Your task to perform on an android device: Search for "macbook pro 15 inch" on bestbuy, select the first entry, add it to the cart, then select checkout. Image 0: 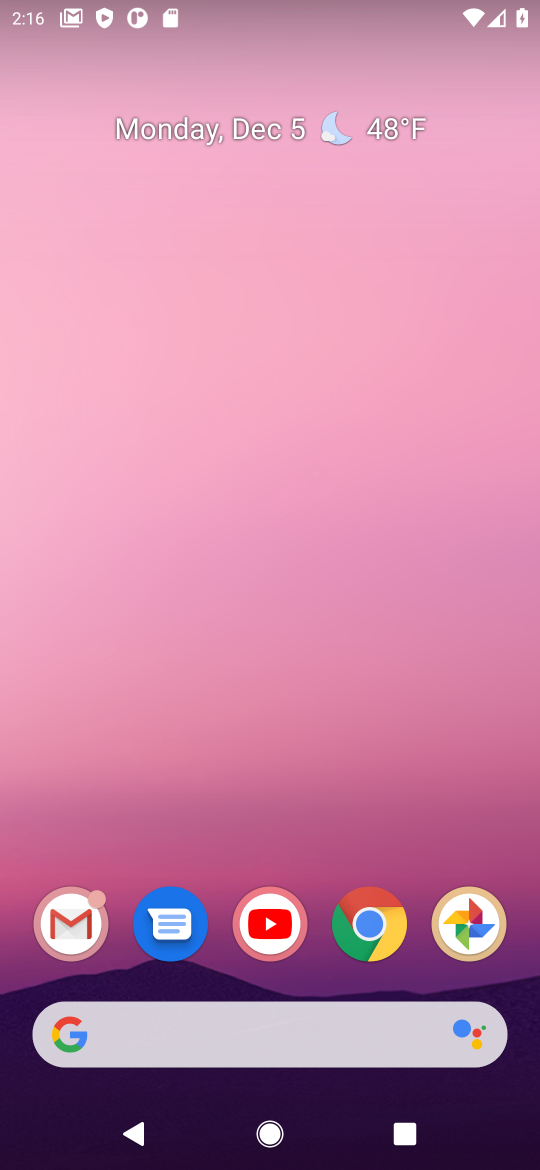
Step 0: click (295, 1053)
Your task to perform on an android device: Search for "macbook pro 15 inch" on bestbuy, select the first entry, add it to the cart, then select checkout. Image 1: 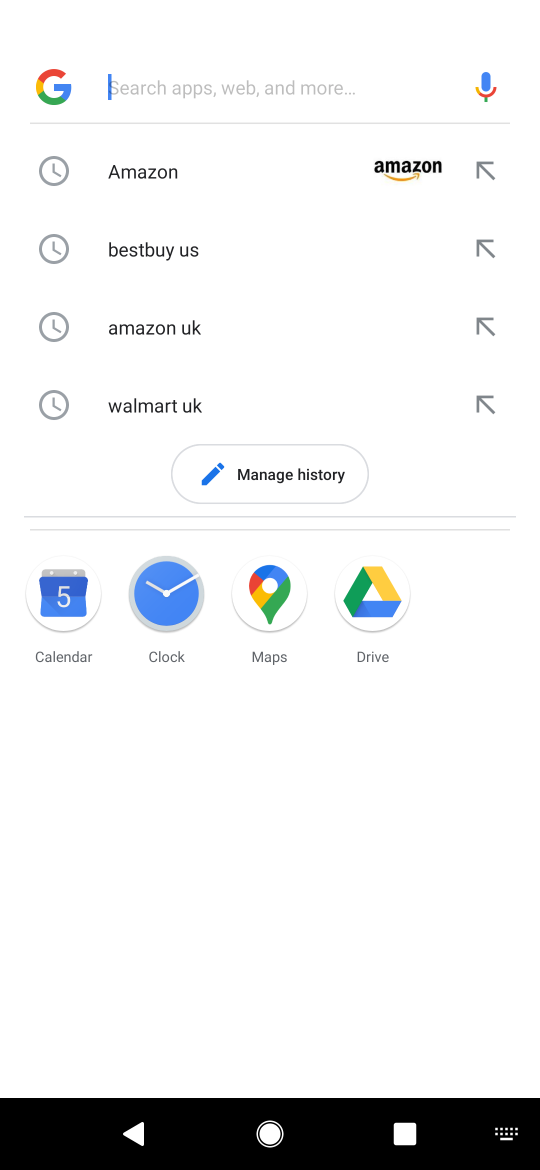
Step 1: click (198, 246)
Your task to perform on an android device: Search for "macbook pro 15 inch" on bestbuy, select the first entry, add it to the cart, then select checkout. Image 2: 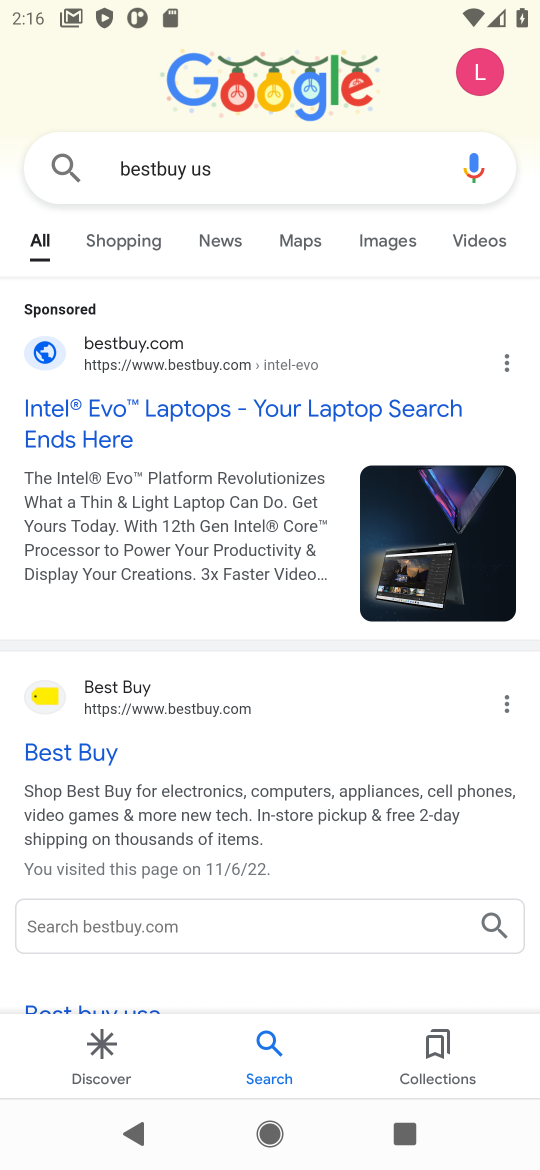
Step 2: click (110, 434)
Your task to perform on an android device: Search for "macbook pro 15 inch" on bestbuy, select the first entry, add it to the cart, then select checkout. Image 3: 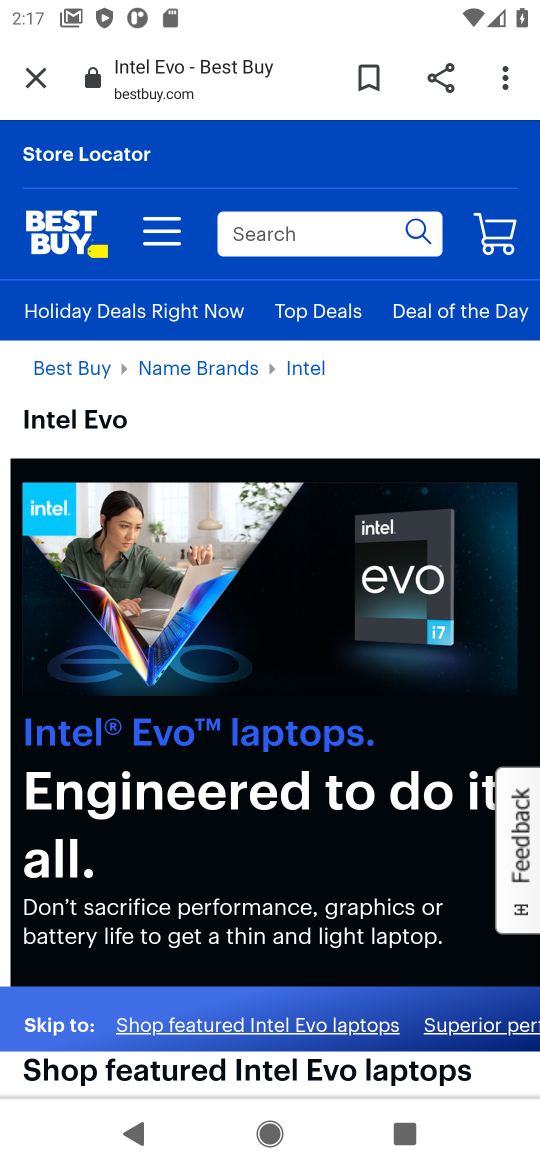
Step 3: click (297, 241)
Your task to perform on an android device: Search for "macbook pro 15 inch" on bestbuy, select the first entry, add it to the cart, then select checkout. Image 4: 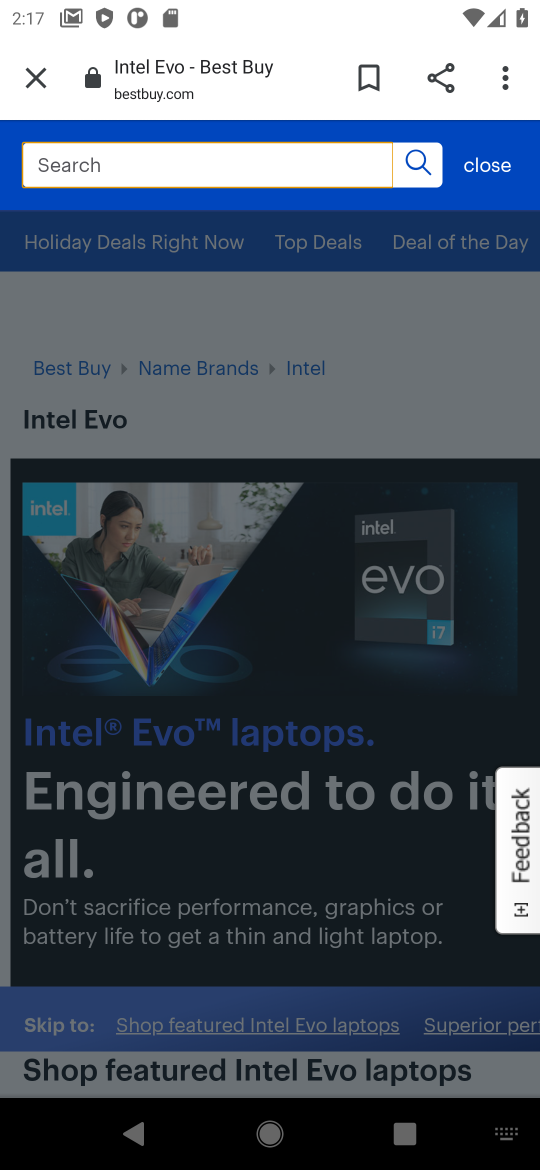
Step 4: type "m"
Your task to perform on an android device: Search for "macbook pro 15 inch" on bestbuy, select the first entry, add it to the cart, then select checkout. Image 5: 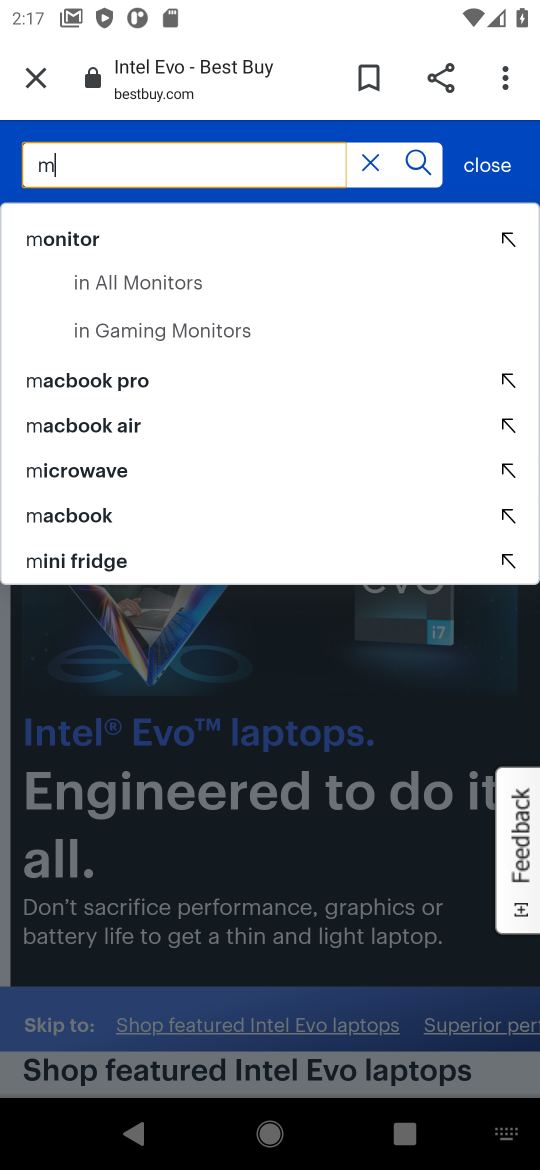
Step 5: click (127, 435)
Your task to perform on an android device: Search for "macbook pro 15 inch" on bestbuy, select the first entry, add it to the cart, then select checkout. Image 6: 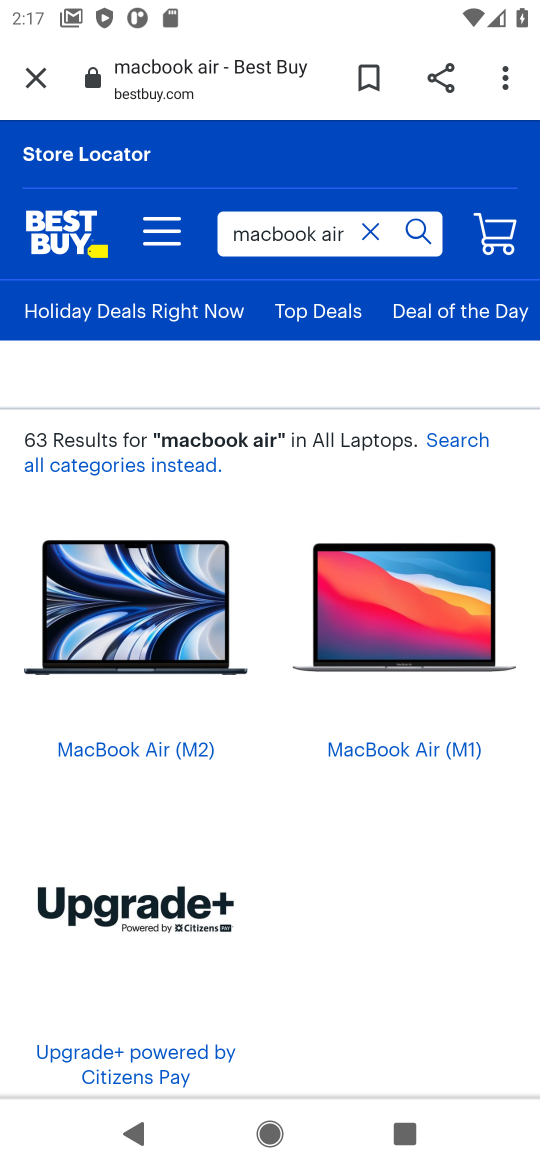
Step 6: click (167, 711)
Your task to perform on an android device: Search for "macbook pro 15 inch" on bestbuy, select the first entry, add it to the cart, then select checkout. Image 7: 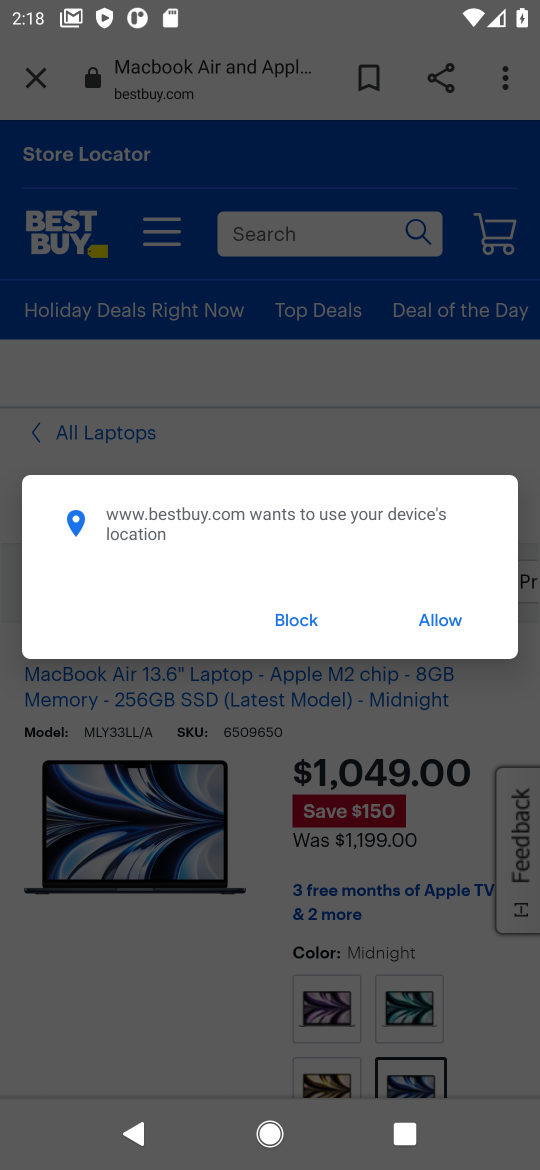
Step 7: click (462, 614)
Your task to perform on an android device: Search for "macbook pro 15 inch" on bestbuy, select the first entry, add it to the cart, then select checkout. Image 8: 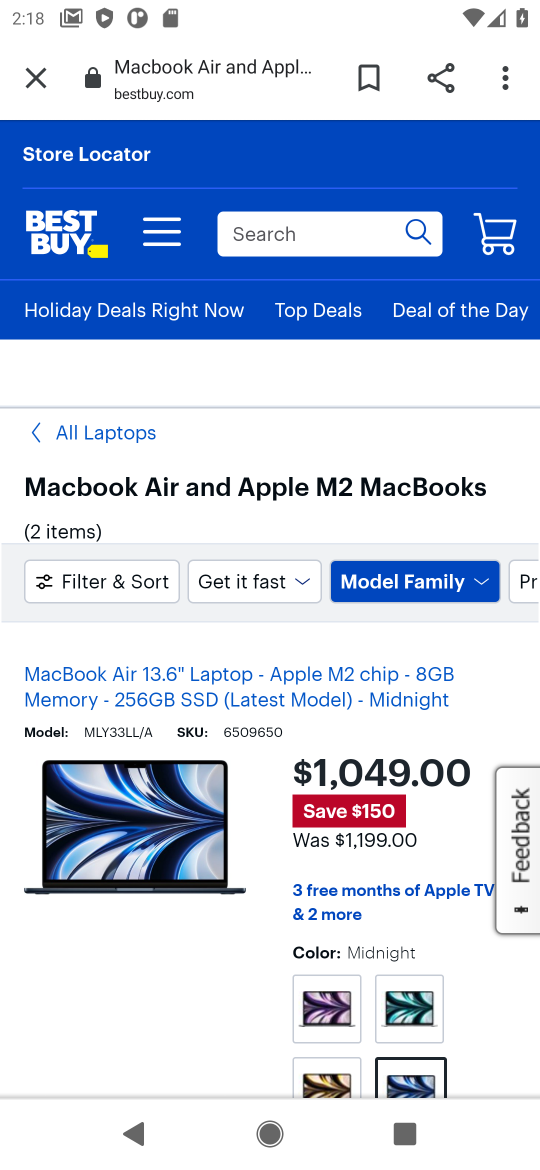
Step 8: drag from (161, 1035) to (178, 241)
Your task to perform on an android device: Search for "macbook pro 15 inch" on bestbuy, select the first entry, add it to the cart, then select checkout. Image 9: 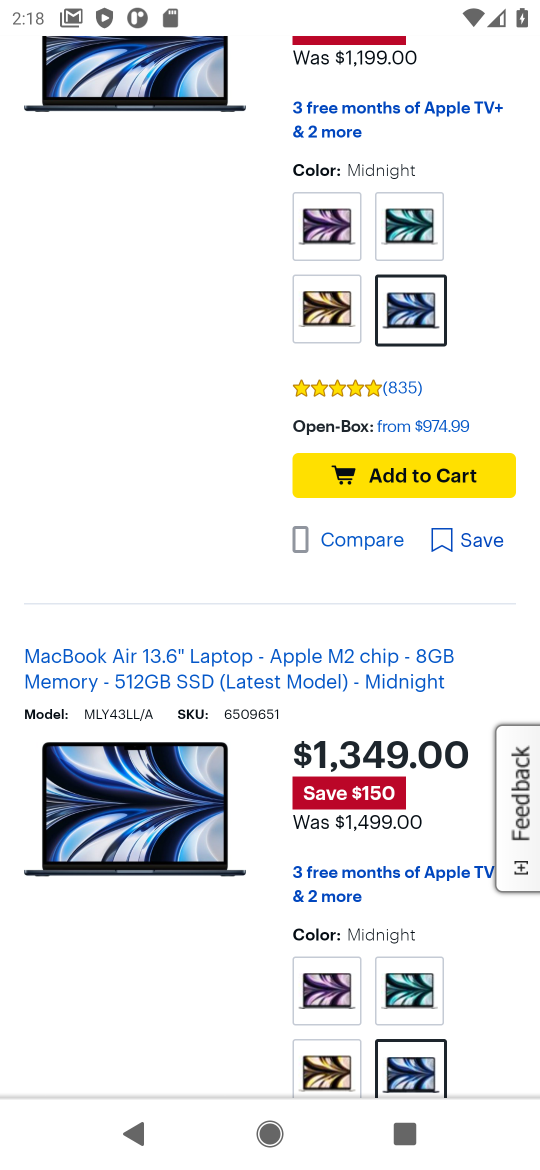
Step 9: click (363, 530)
Your task to perform on an android device: Search for "macbook pro 15 inch" on bestbuy, select the first entry, add it to the cart, then select checkout. Image 10: 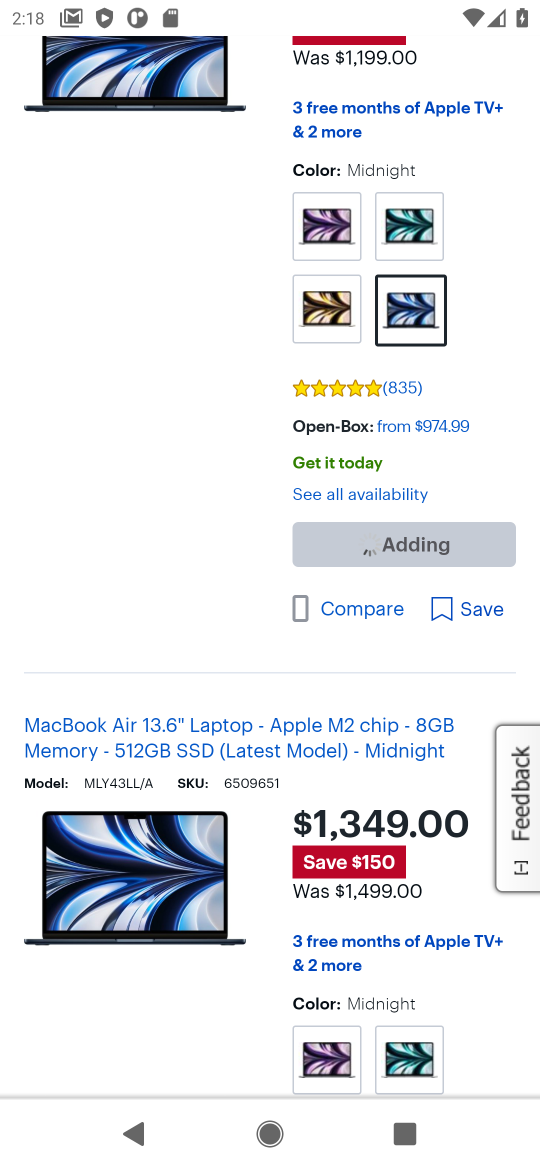
Step 10: task complete